Your task to perform on an android device: Go to battery settings Image 0: 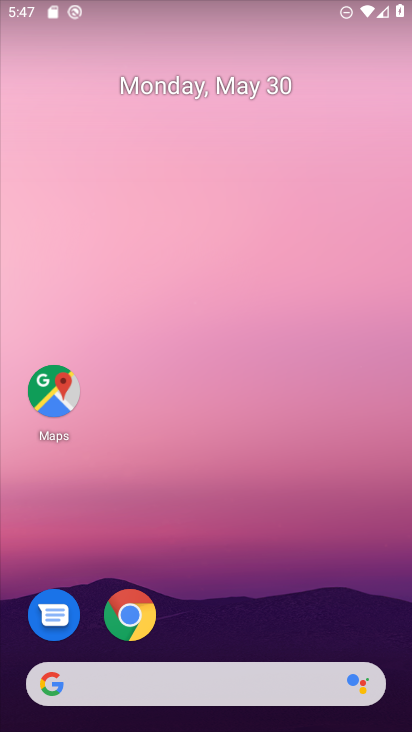
Step 0: drag from (235, 13) to (189, 422)
Your task to perform on an android device: Go to battery settings Image 1: 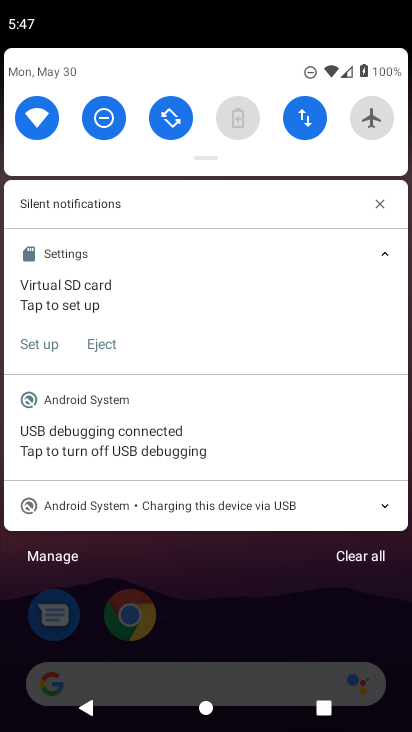
Step 1: click (228, 130)
Your task to perform on an android device: Go to battery settings Image 2: 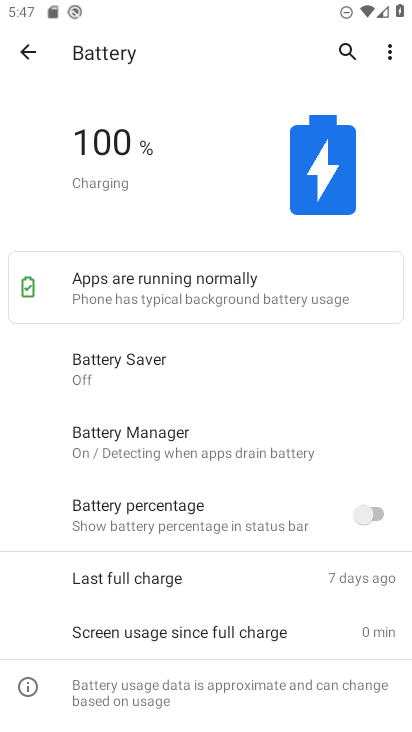
Step 2: task complete